Your task to perform on an android device: turn off sleep mode Image 0: 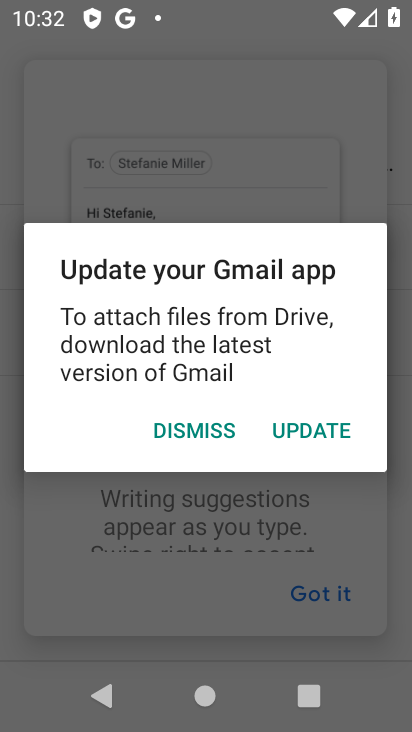
Step 0: press home button
Your task to perform on an android device: turn off sleep mode Image 1: 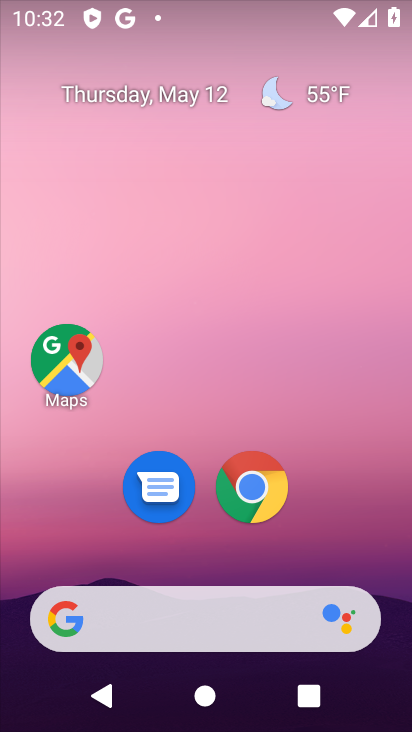
Step 1: drag from (364, 590) to (324, 15)
Your task to perform on an android device: turn off sleep mode Image 2: 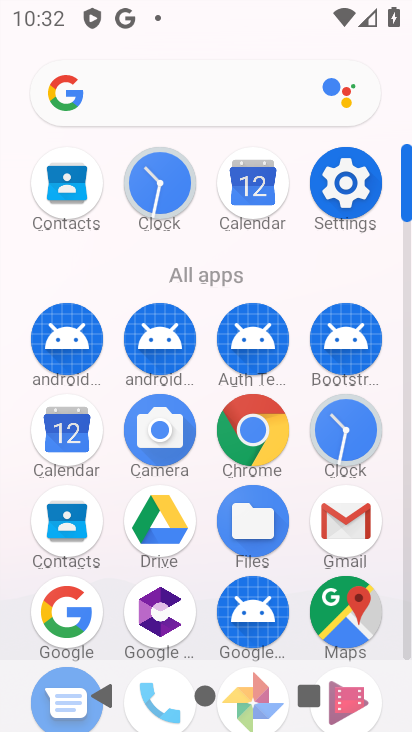
Step 2: click (353, 179)
Your task to perform on an android device: turn off sleep mode Image 3: 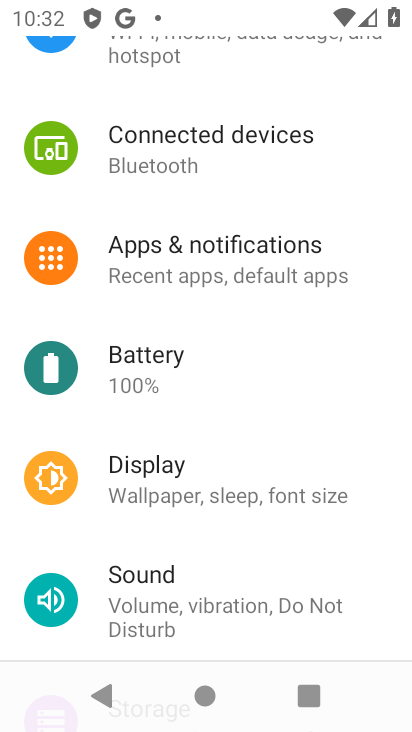
Step 3: click (170, 471)
Your task to perform on an android device: turn off sleep mode Image 4: 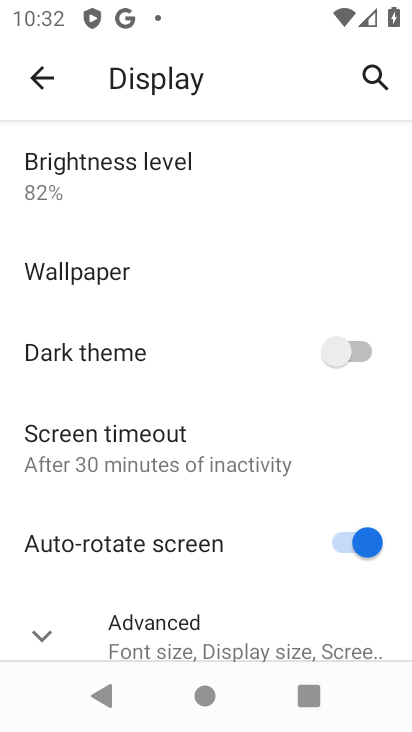
Step 4: click (46, 631)
Your task to perform on an android device: turn off sleep mode Image 5: 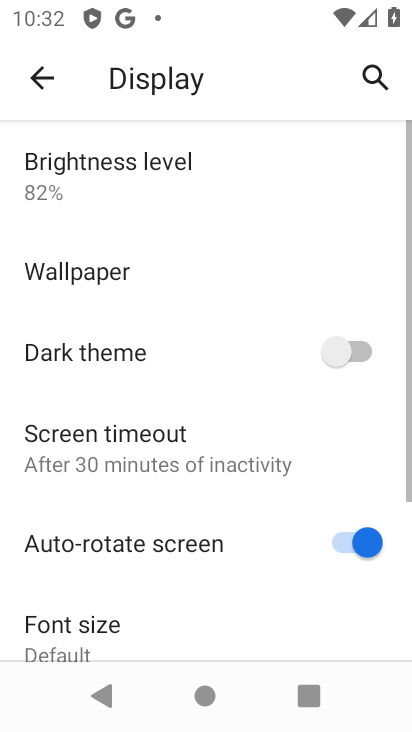
Step 5: task complete